Your task to perform on an android device: Go to settings Image 0: 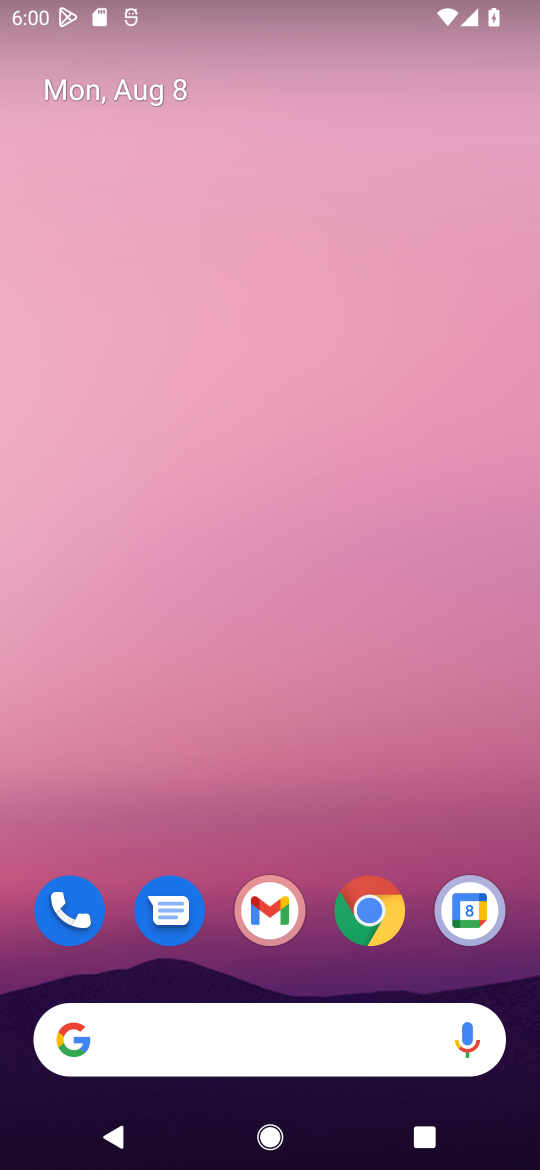
Step 0: drag from (327, 865) to (417, 272)
Your task to perform on an android device: Go to settings Image 1: 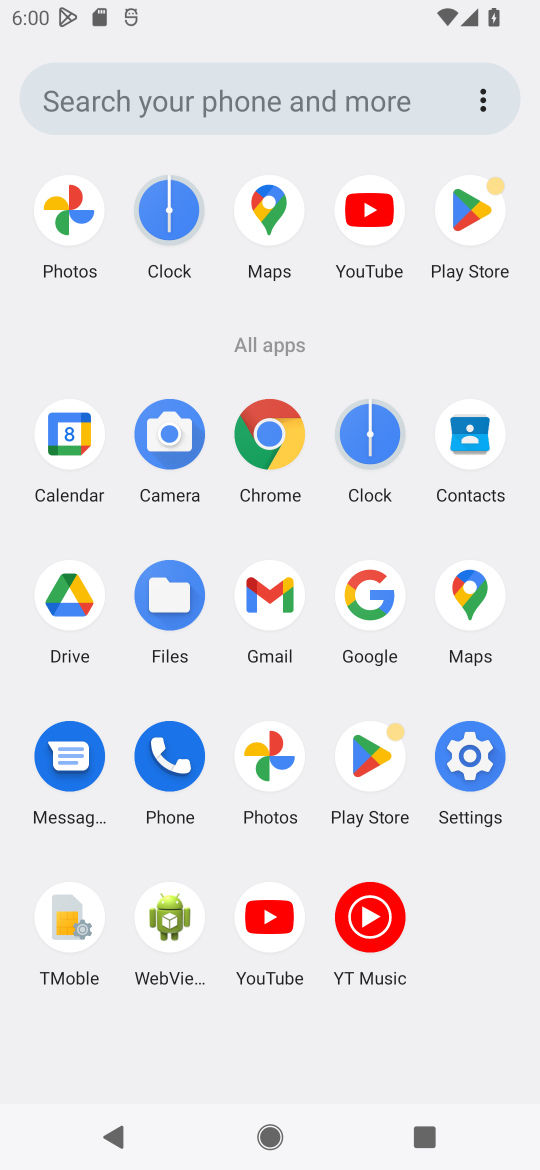
Step 1: click (469, 750)
Your task to perform on an android device: Go to settings Image 2: 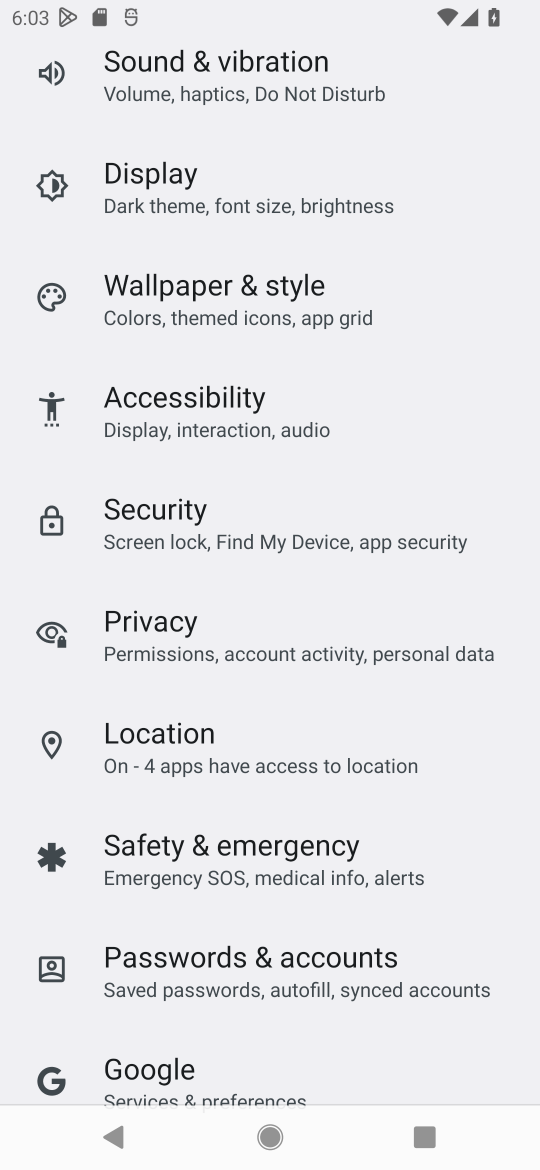
Step 2: task complete